Your task to perform on an android device: Open the phone app and click the voicemail tab. Image 0: 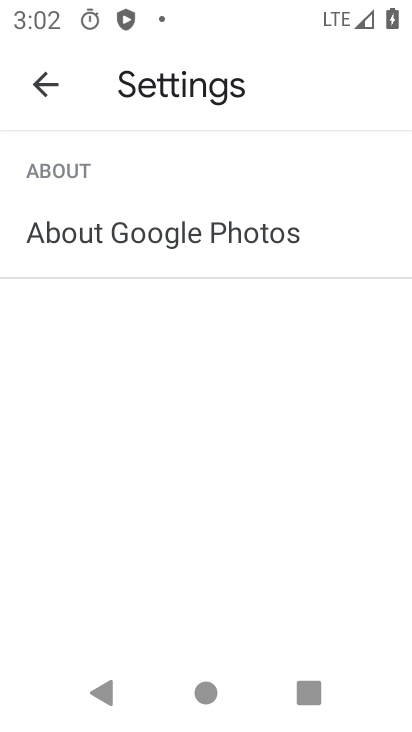
Step 0: press home button
Your task to perform on an android device: Open the phone app and click the voicemail tab. Image 1: 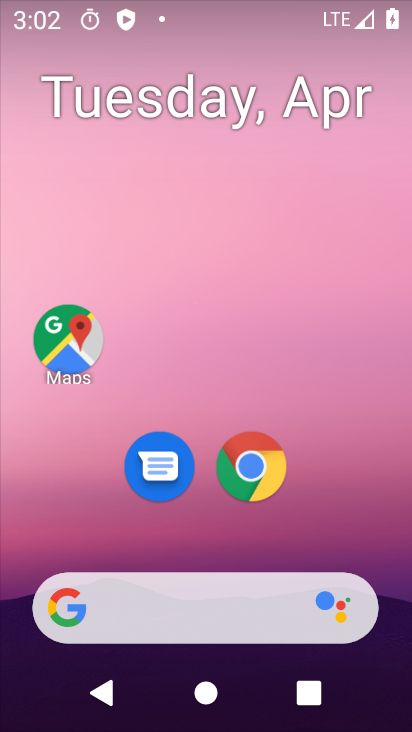
Step 1: drag from (200, 544) to (270, 21)
Your task to perform on an android device: Open the phone app and click the voicemail tab. Image 2: 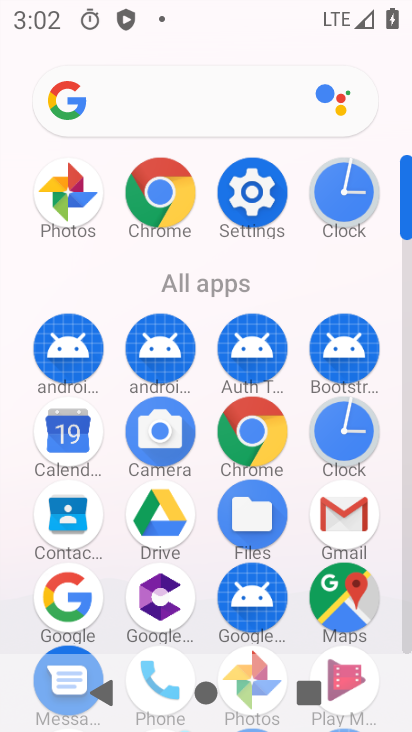
Step 2: drag from (207, 636) to (203, 315)
Your task to perform on an android device: Open the phone app and click the voicemail tab. Image 3: 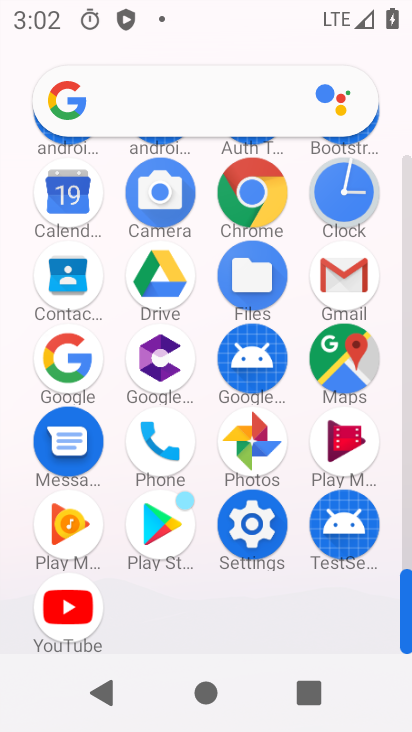
Step 3: click (152, 444)
Your task to perform on an android device: Open the phone app and click the voicemail tab. Image 4: 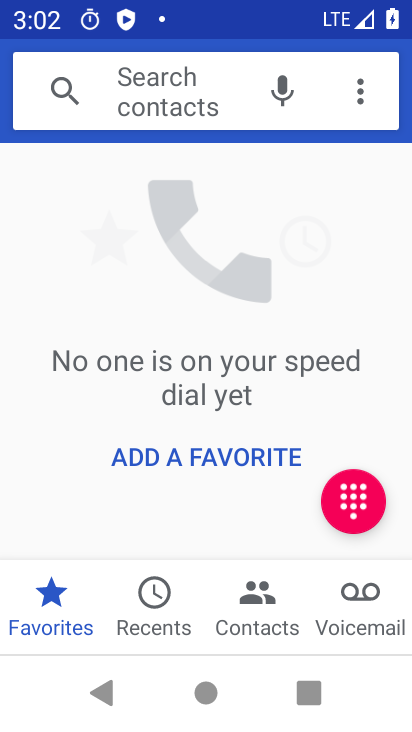
Step 4: click (372, 605)
Your task to perform on an android device: Open the phone app and click the voicemail tab. Image 5: 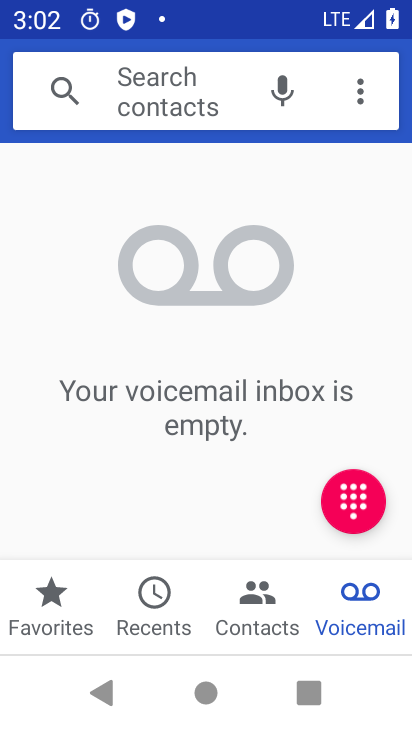
Step 5: task complete